Your task to perform on an android device: Go to network settings Image 0: 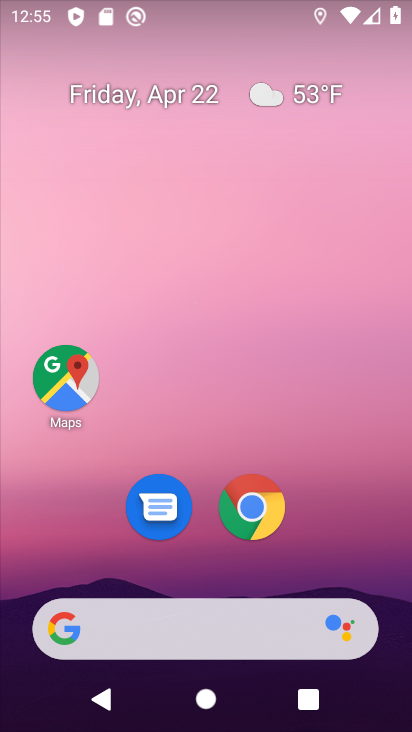
Step 0: drag from (335, 518) to (320, 141)
Your task to perform on an android device: Go to network settings Image 1: 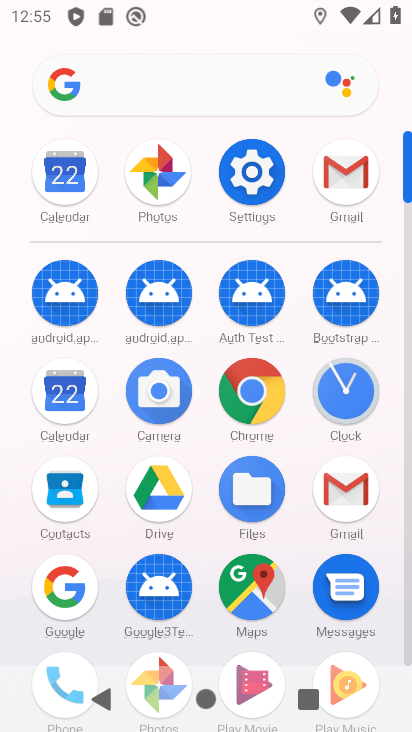
Step 1: click (268, 186)
Your task to perform on an android device: Go to network settings Image 2: 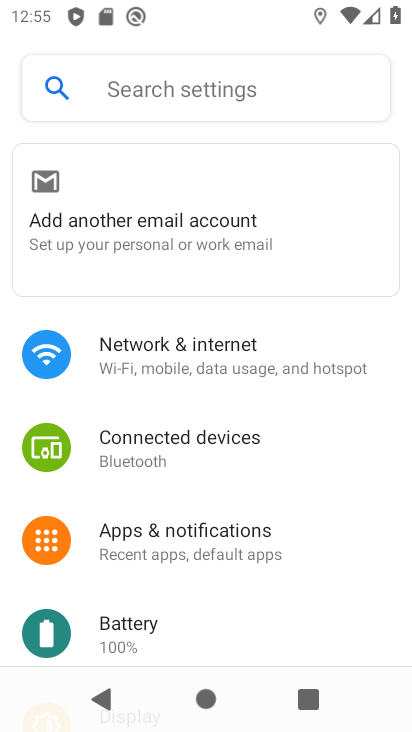
Step 2: click (177, 351)
Your task to perform on an android device: Go to network settings Image 3: 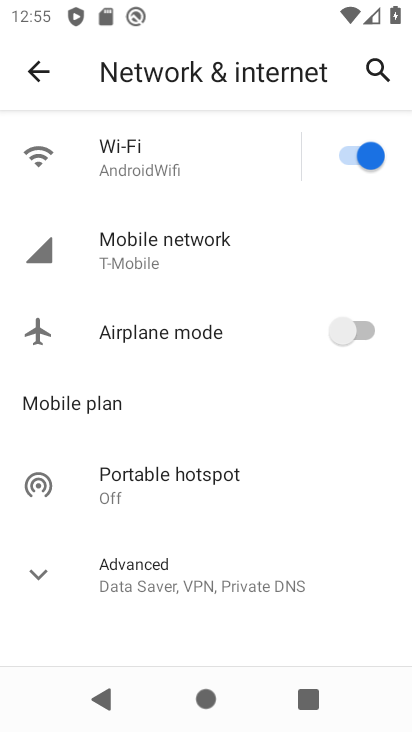
Step 3: click (168, 253)
Your task to perform on an android device: Go to network settings Image 4: 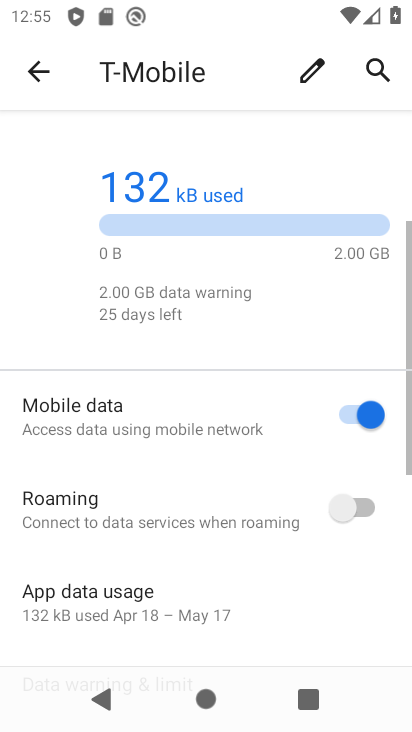
Step 4: task complete